Your task to perform on an android device: manage bookmarks in the chrome app Image 0: 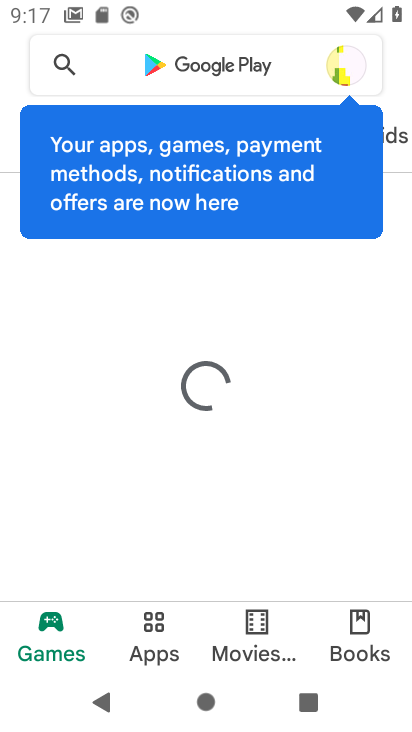
Step 0: press home button
Your task to perform on an android device: manage bookmarks in the chrome app Image 1: 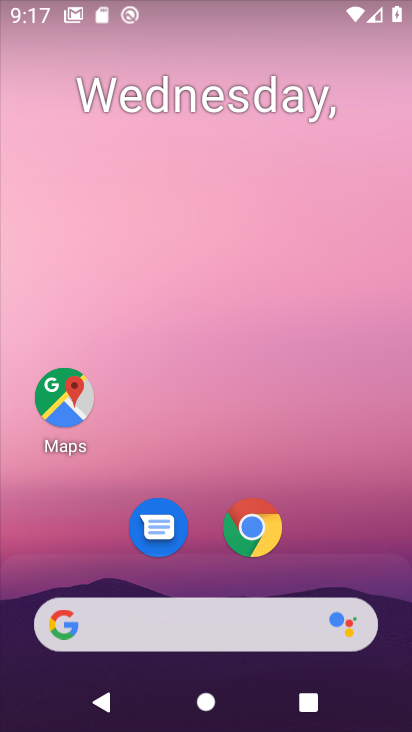
Step 1: click (244, 528)
Your task to perform on an android device: manage bookmarks in the chrome app Image 2: 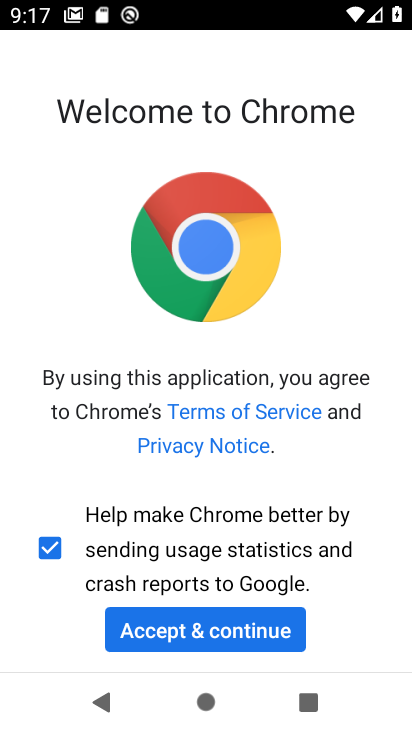
Step 2: click (198, 623)
Your task to perform on an android device: manage bookmarks in the chrome app Image 3: 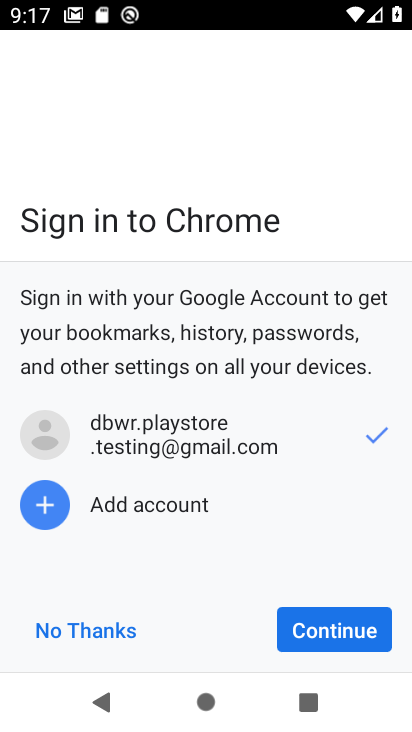
Step 3: click (332, 627)
Your task to perform on an android device: manage bookmarks in the chrome app Image 4: 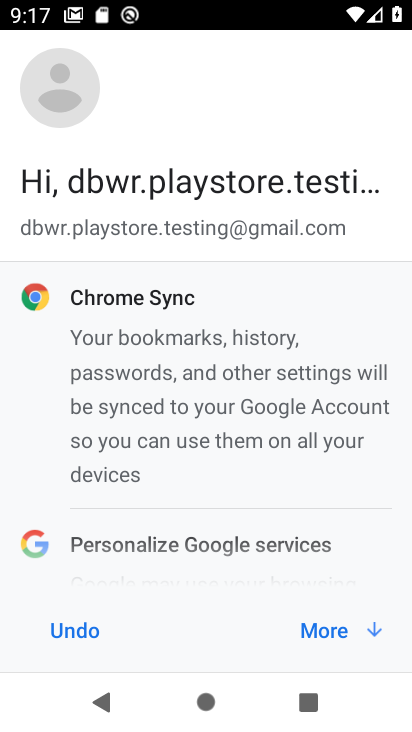
Step 4: click (333, 627)
Your task to perform on an android device: manage bookmarks in the chrome app Image 5: 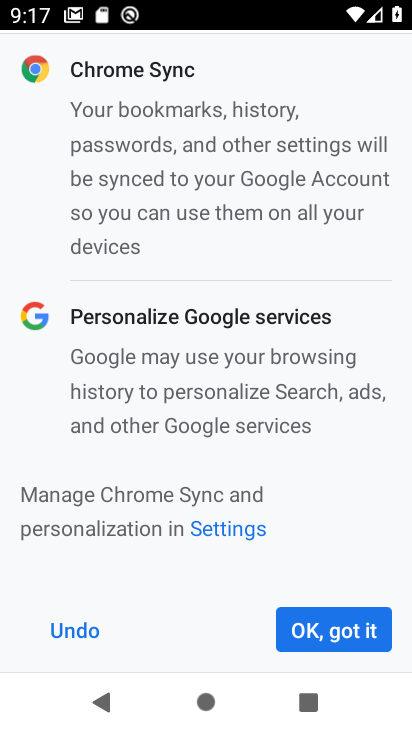
Step 5: click (333, 627)
Your task to perform on an android device: manage bookmarks in the chrome app Image 6: 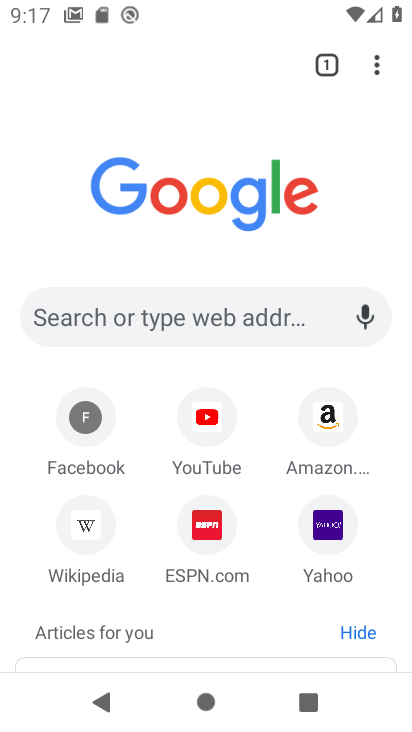
Step 6: click (380, 63)
Your task to perform on an android device: manage bookmarks in the chrome app Image 7: 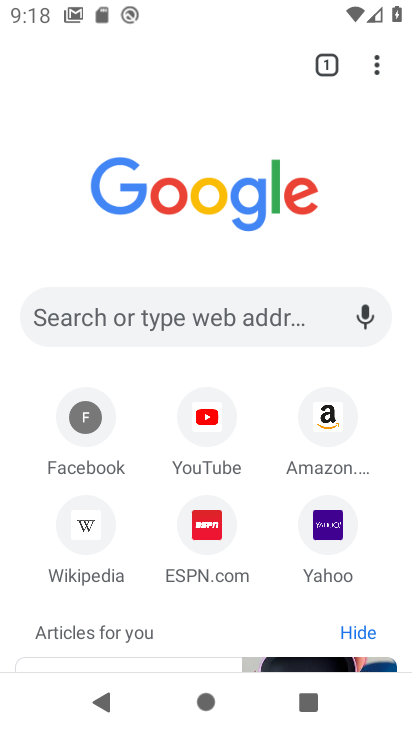
Step 7: click (379, 73)
Your task to perform on an android device: manage bookmarks in the chrome app Image 8: 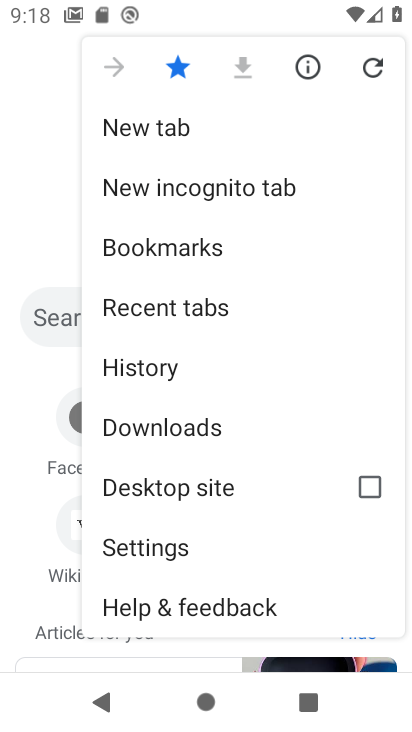
Step 8: click (232, 250)
Your task to perform on an android device: manage bookmarks in the chrome app Image 9: 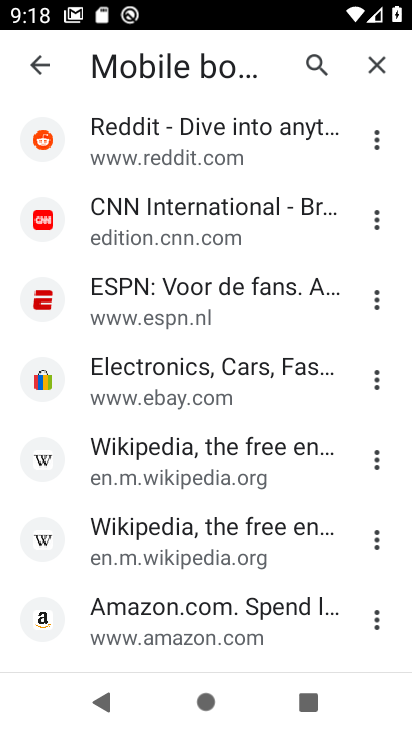
Step 9: click (382, 375)
Your task to perform on an android device: manage bookmarks in the chrome app Image 10: 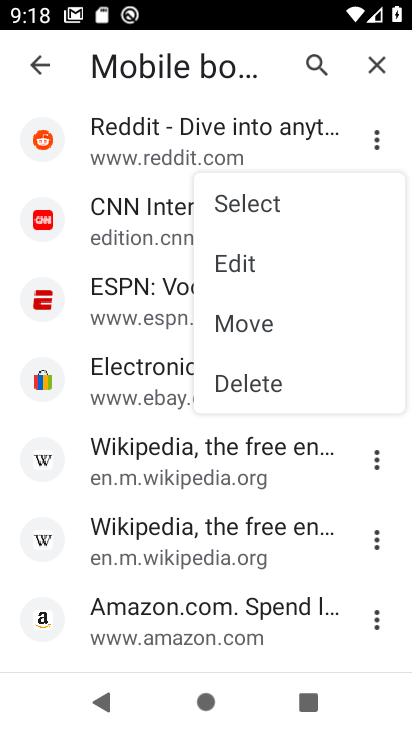
Step 10: click (289, 381)
Your task to perform on an android device: manage bookmarks in the chrome app Image 11: 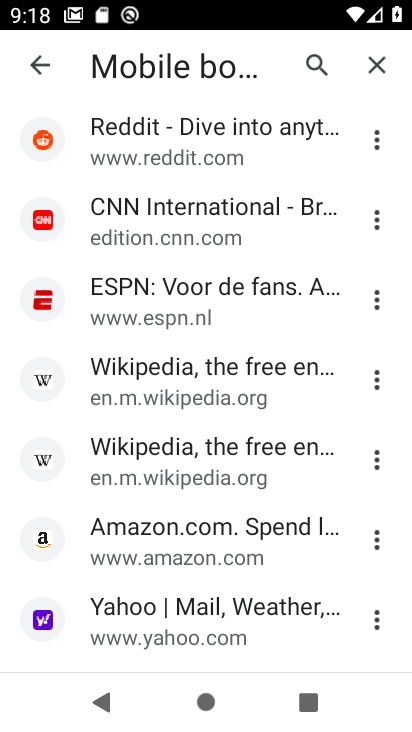
Step 11: task complete